Your task to perform on an android device: install app "Yahoo Mail" Image 0: 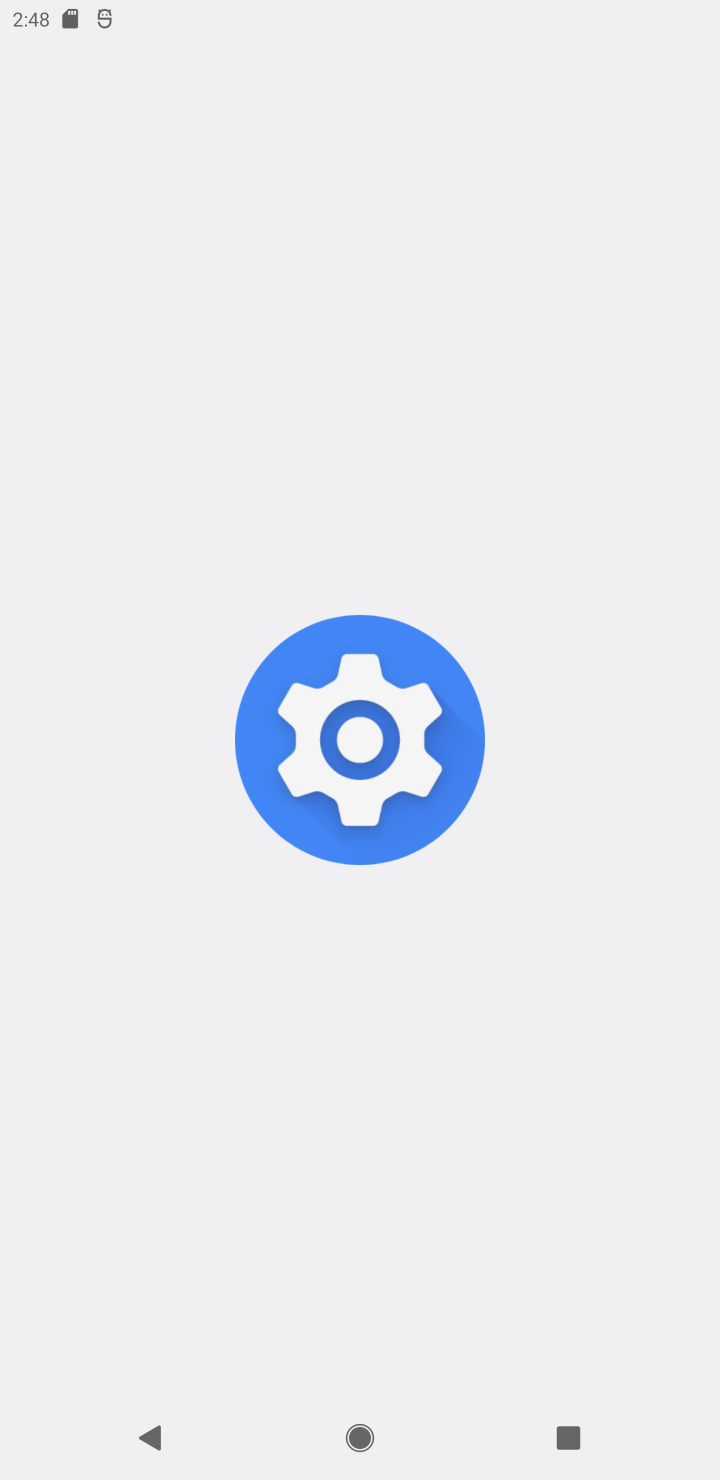
Step 0: click (309, 1284)
Your task to perform on an android device: install app "Yahoo Mail" Image 1: 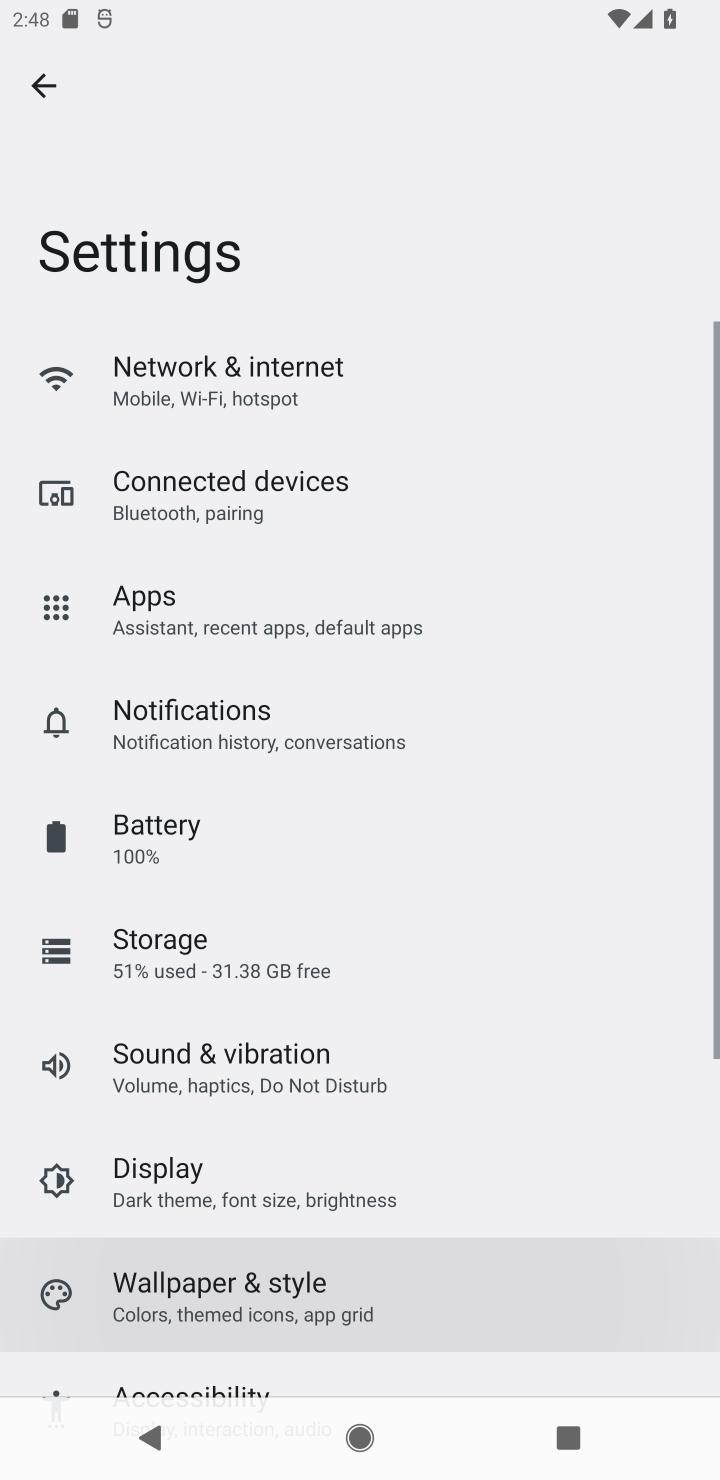
Step 1: press home button
Your task to perform on an android device: install app "Yahoo Mail" Image 2: 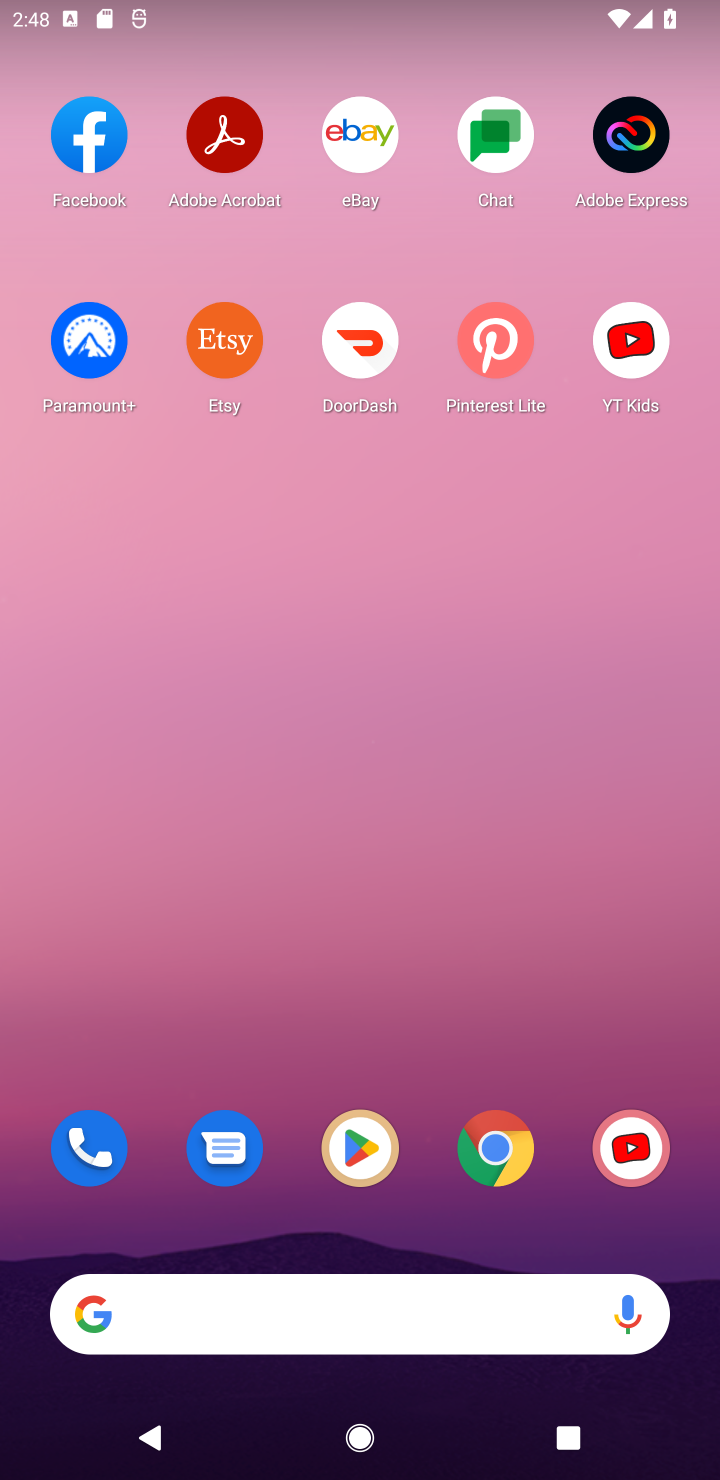
Step 2: click (375, 1156)
Your task to perform on an android device: install app "Yahoo Mail" Image 3: 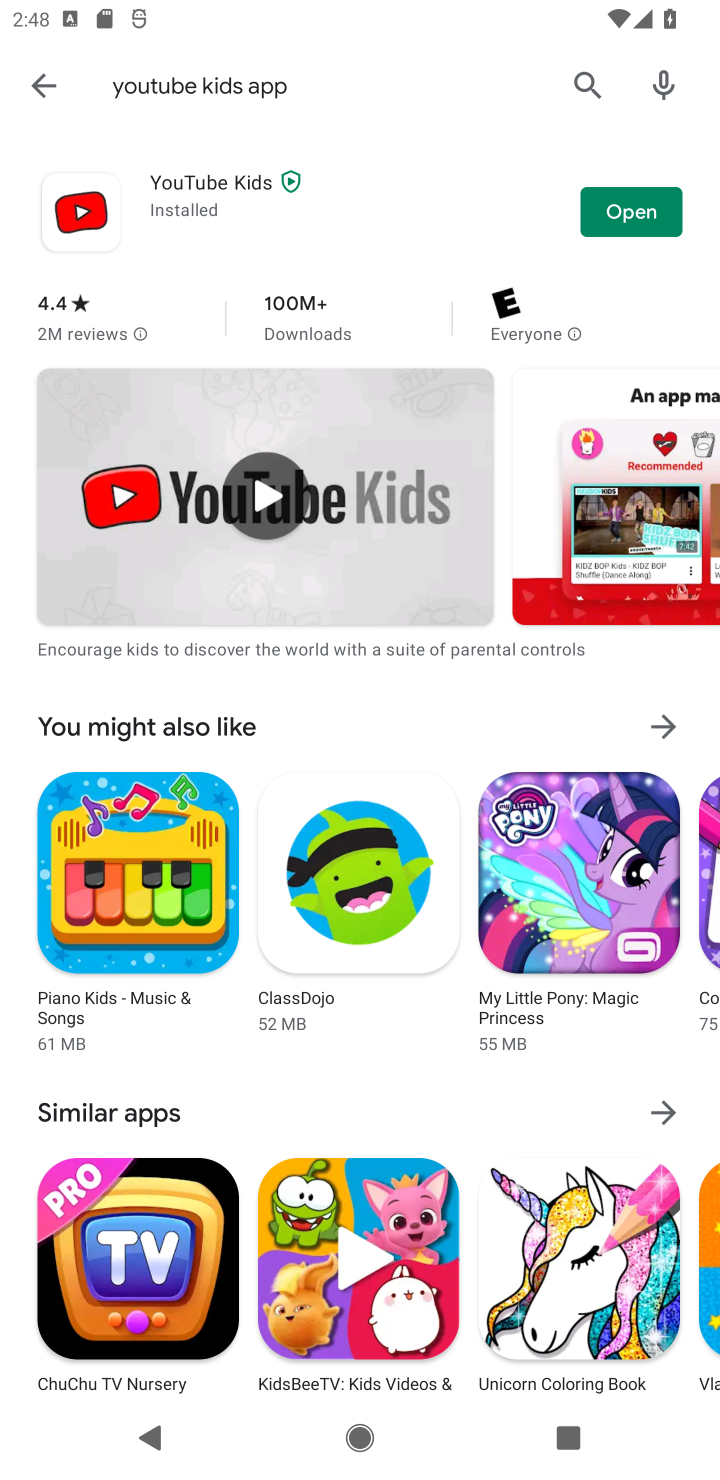
Step 3: click (57, 80)
Your task to perform on an android device: install app "Yahoo Mail" Image 4: 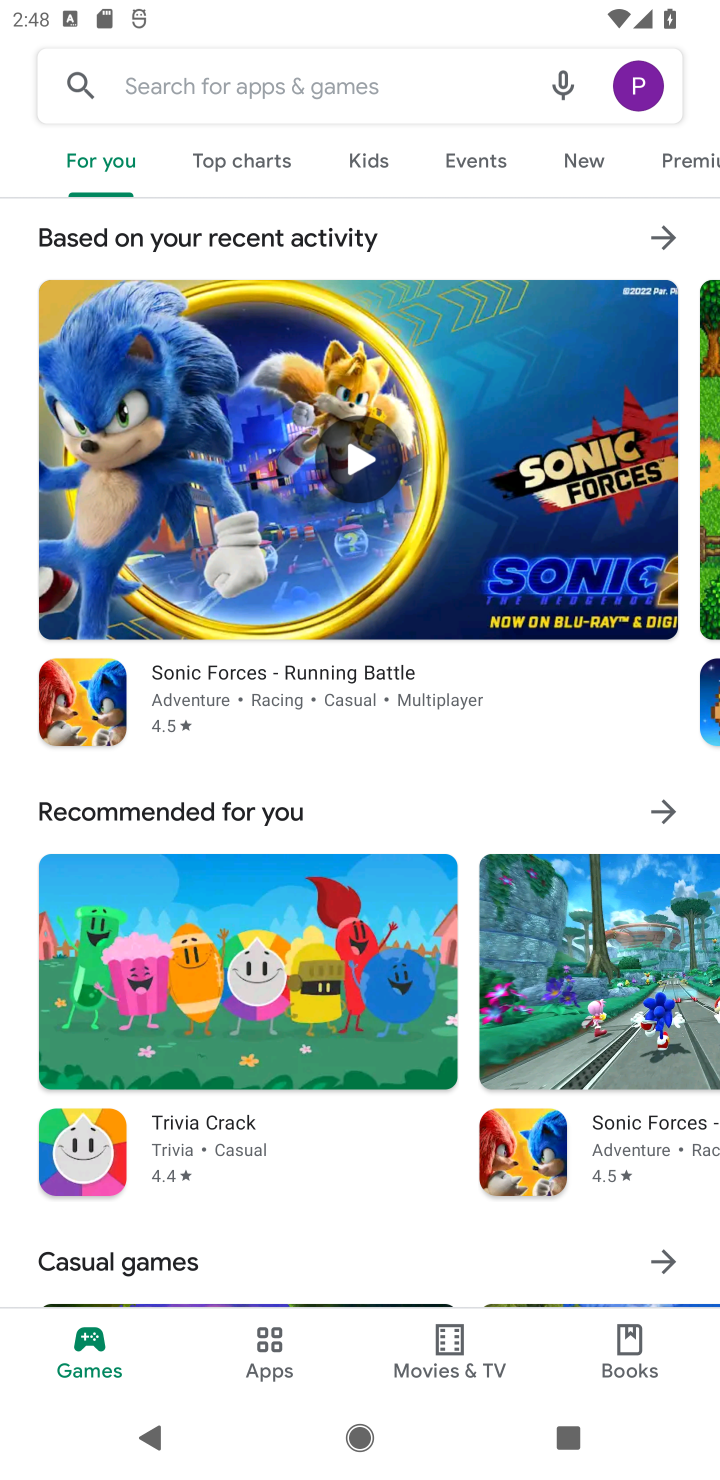
Step 4: click (225, 75)
Your task to perform on an android device: install app "Yahoo Mail" Image 5: 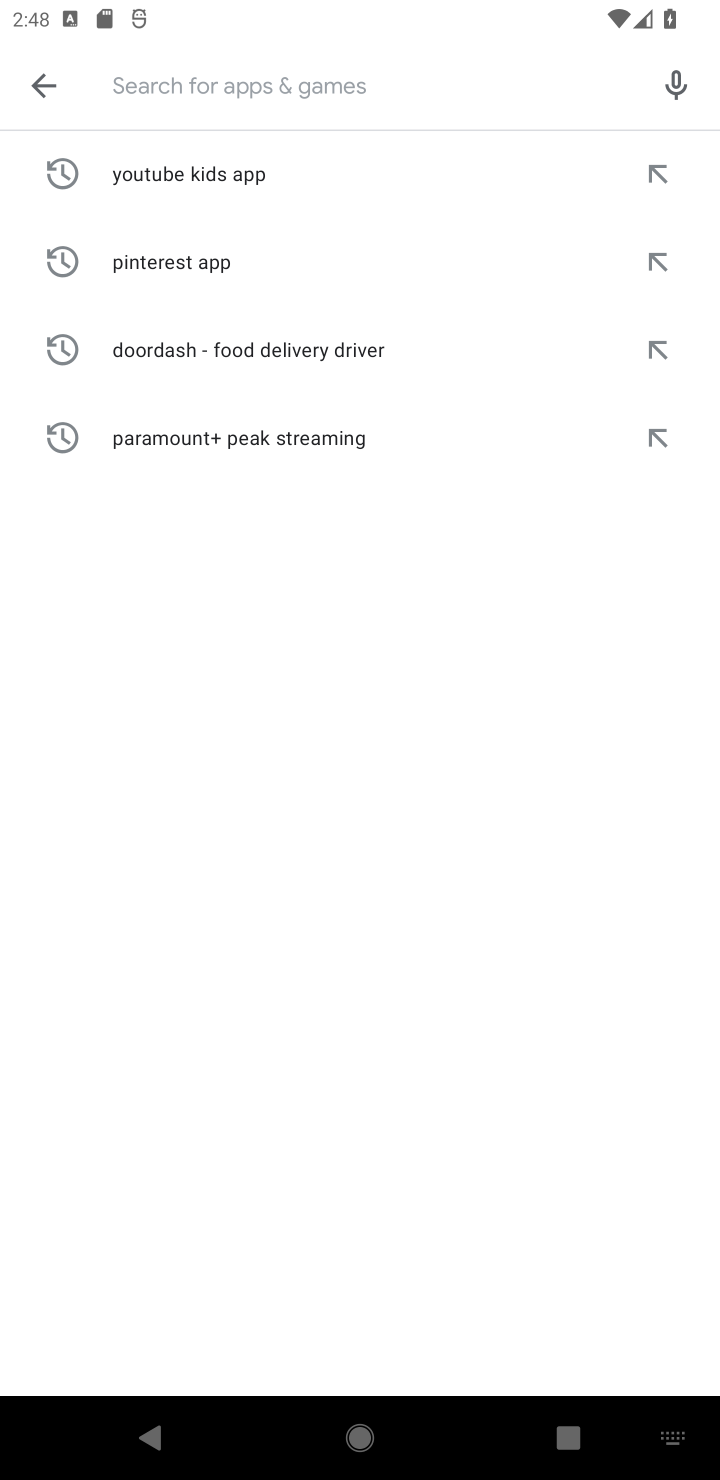
Step 5: click (367, 70)
Your task to perform on an android device: install app "Yahoo Mail" Image 6: 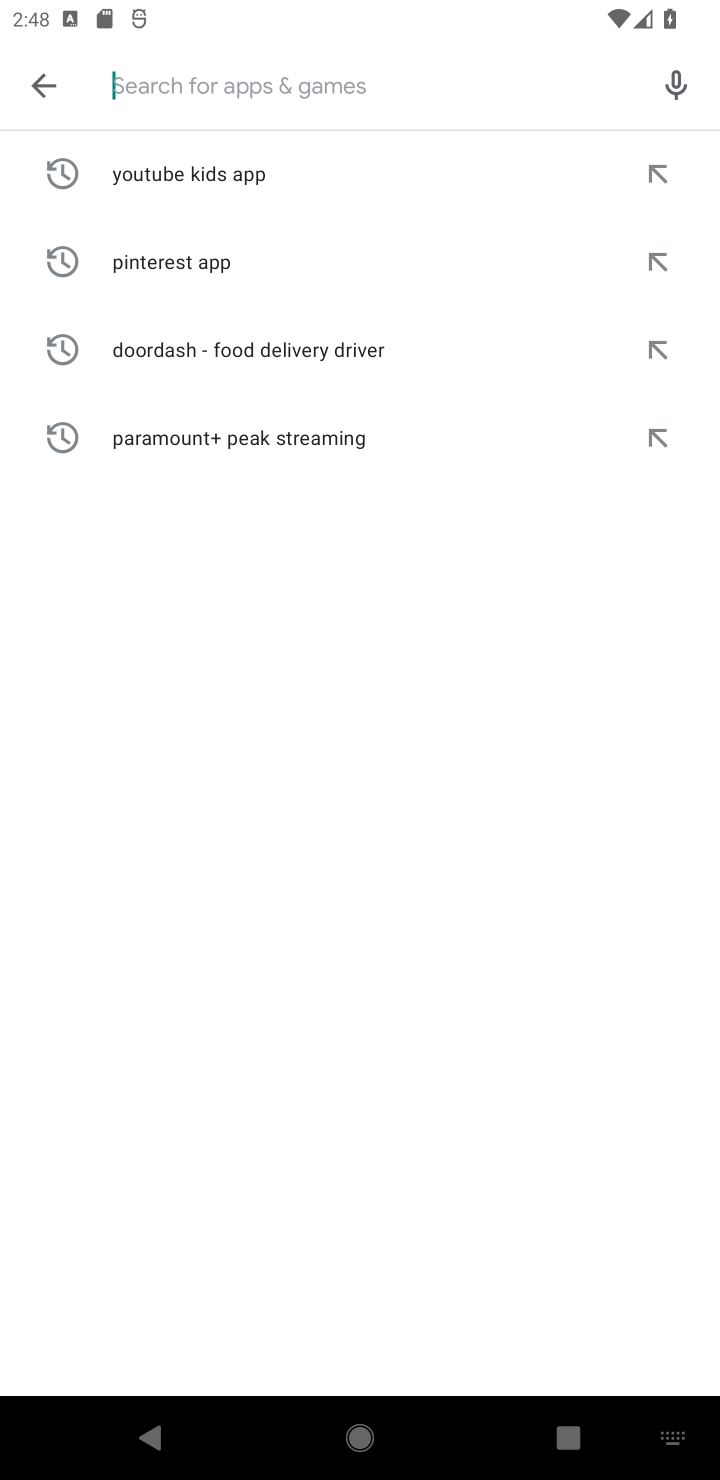
Step 6: type "Yahoo Mail "
Your task to perform on an android device: install app "Yahoo Mail" Image 7: 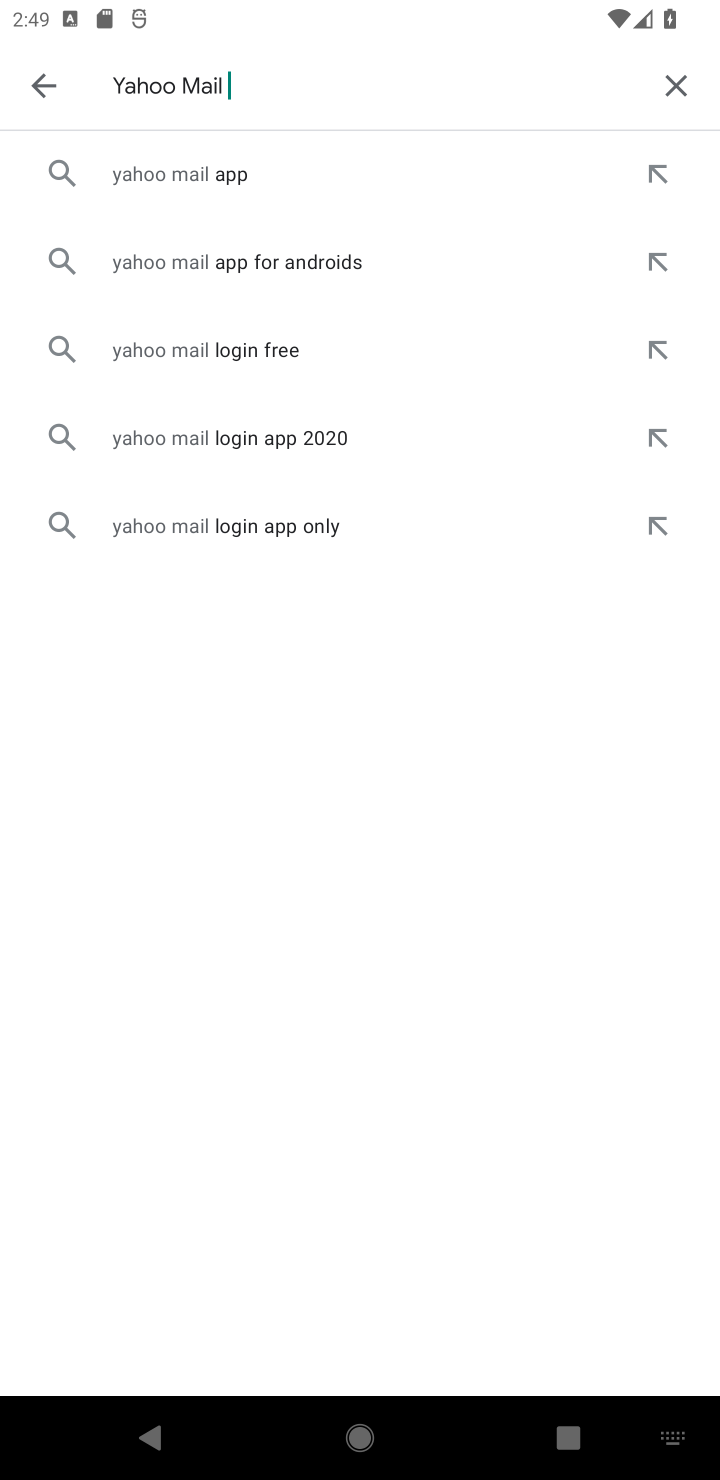
Step 7: click (152, 183)
Your task to perform on an android device: install app "Yahoo Mail" Image 8: 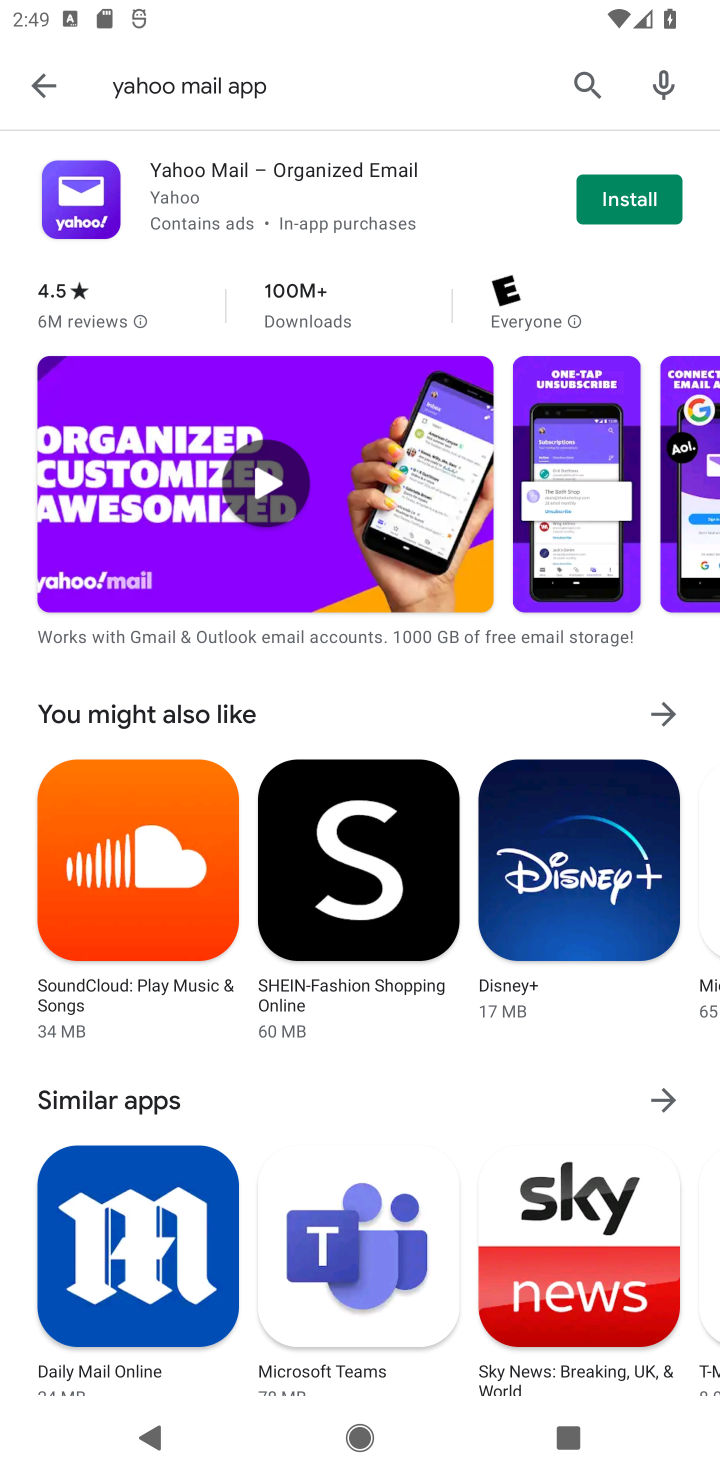
Step 8: click (655, 199)
Your task to perform on an android device: install app "Yahoo Mail" Image 9: 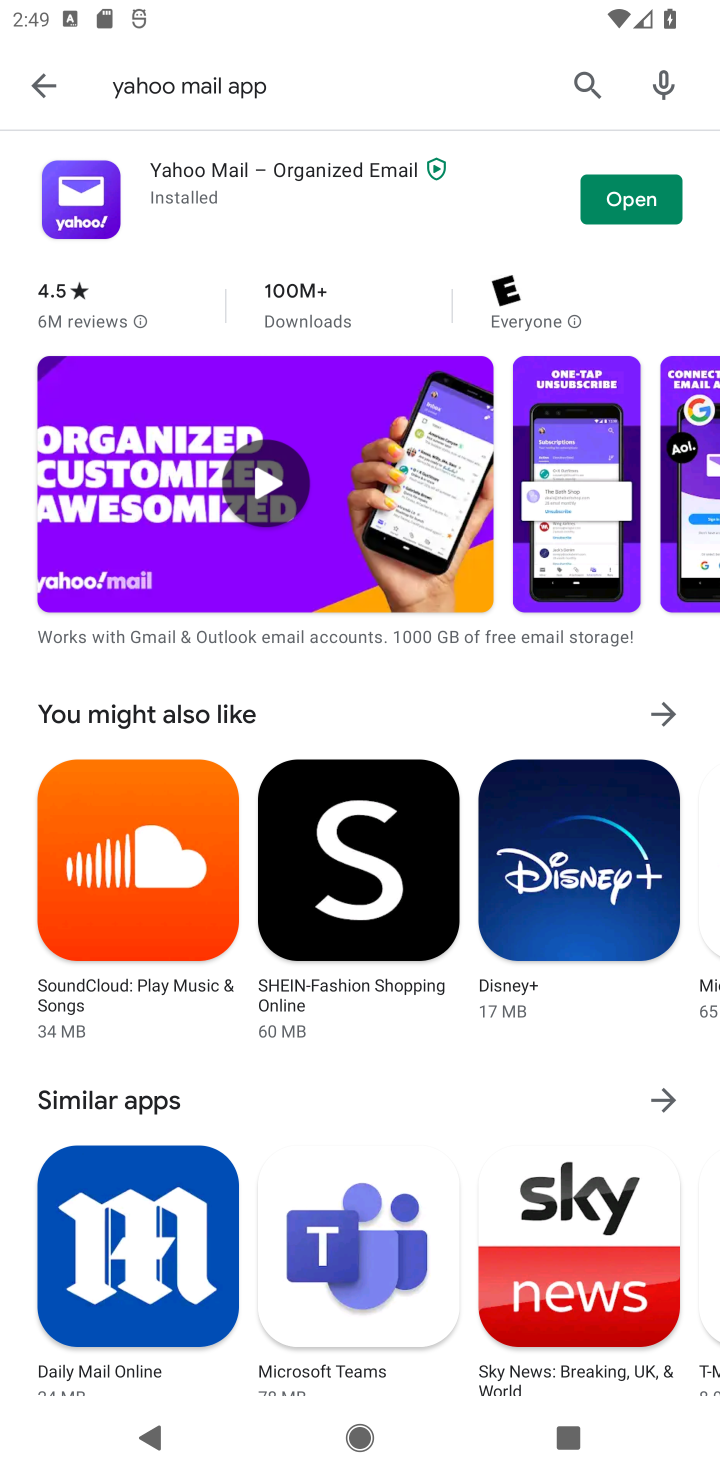
Step 9: click (639, 191)
Your task to perform on an android device: install app "Yahoo Mail" Image 10: 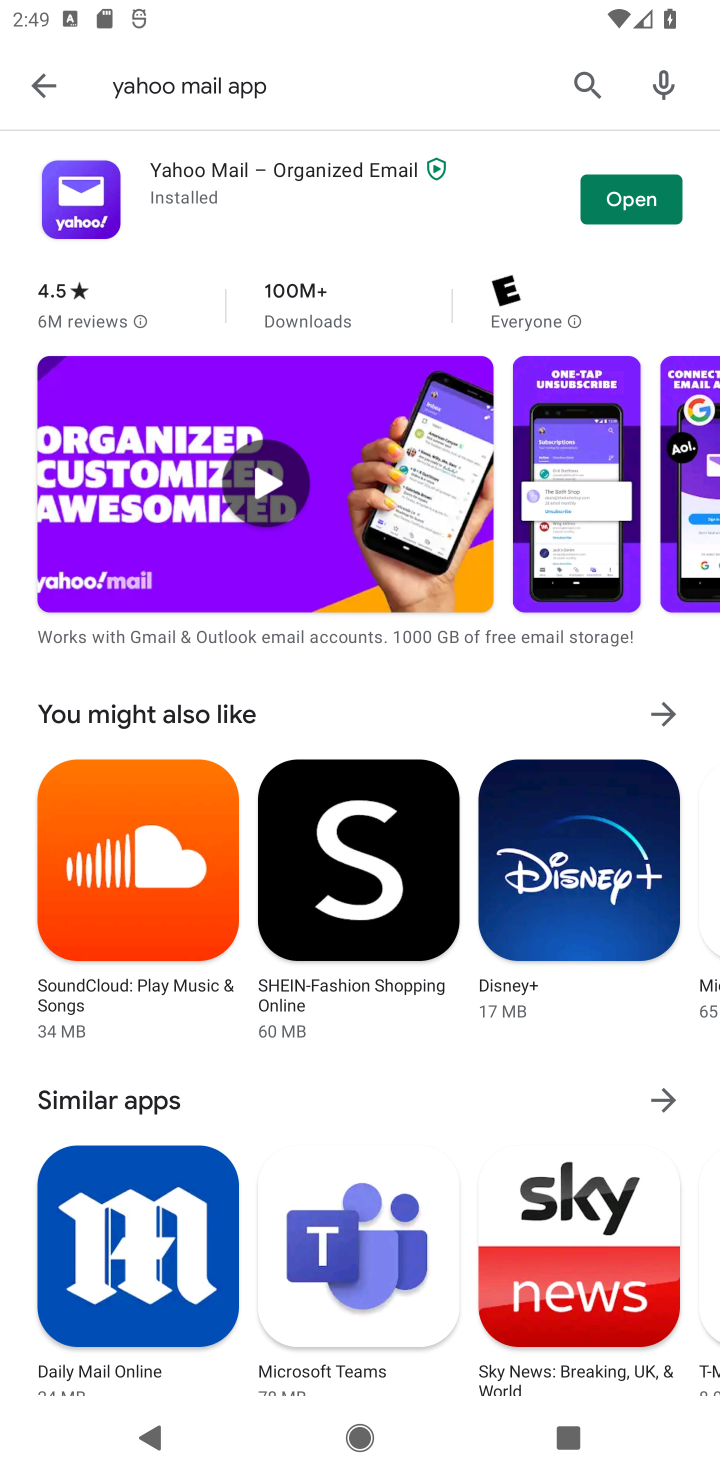
Step 10: task complete